Your task to perform on an android device: Is it going to rain today? Image 0: 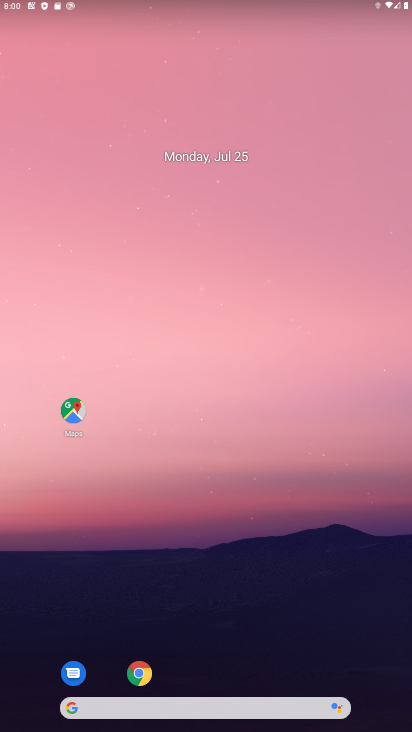
Step 0: drag from (205, 708) to (166, 265)
Your task to perform on an android device: Is it going to rain today? Image 1: 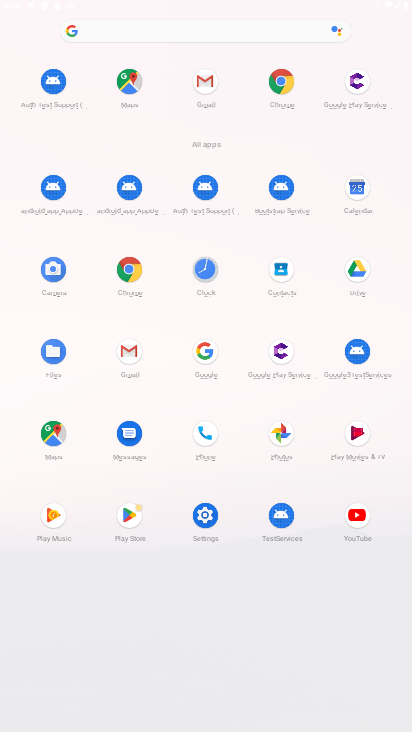
Step 1: click (276, 91)
Your task to perform on an android device: Is it going to rain today? Image 2: 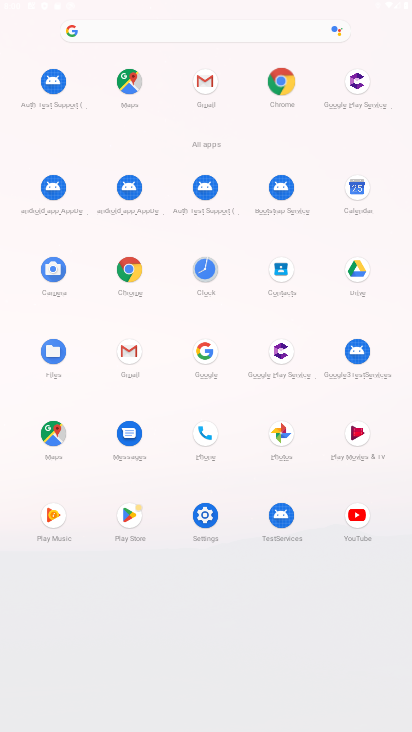
Step 2: click (279, 88)
Your task to perform on an android device: Is it going to rain today? Image 3: 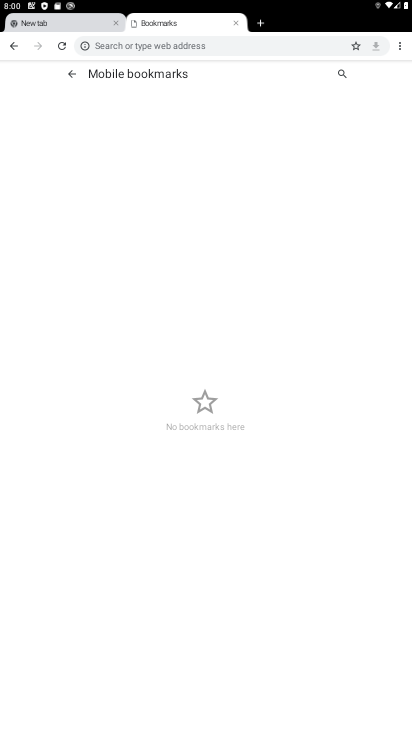
Step 3: click (66, 66)
Your task to perform on an android device: Is it going to rain today? Image 4: 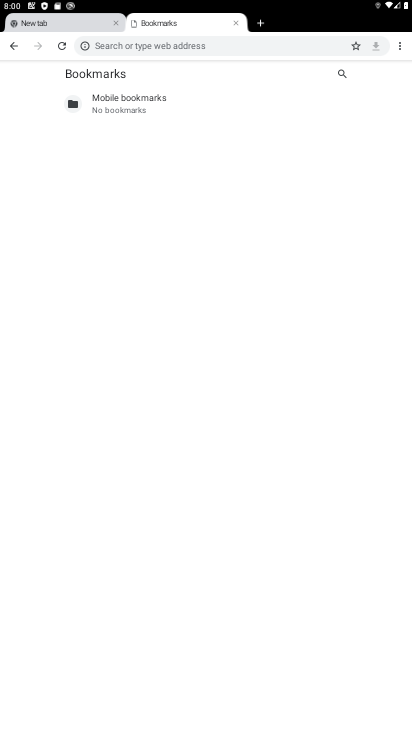
Step 4: click (65, 68)
Your task to perform on an android device: Is it going to rain today? Image 5: 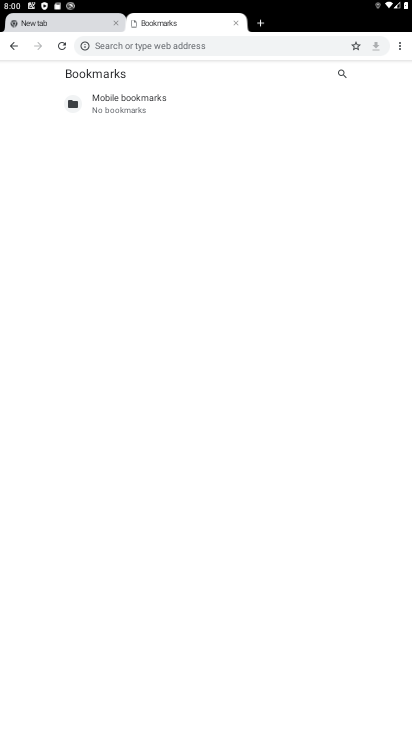
Step 5: click (102, 51)
Your task to perform on an android device: Is it going to rain today? Image 6: 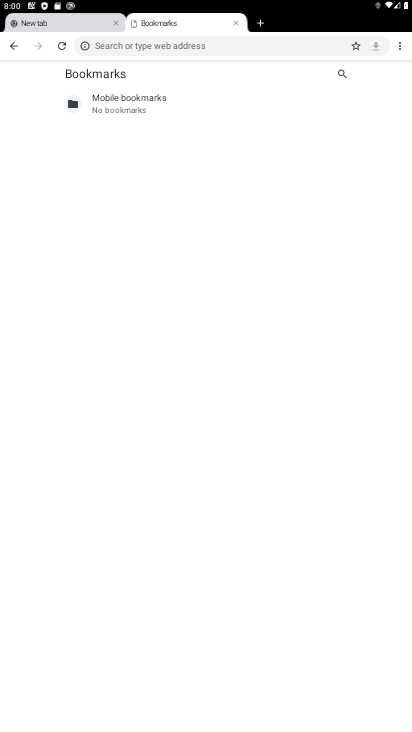
Step 6: click (108, 36)
Your task to perform on an android device: Is it going to rain today? Image 7: 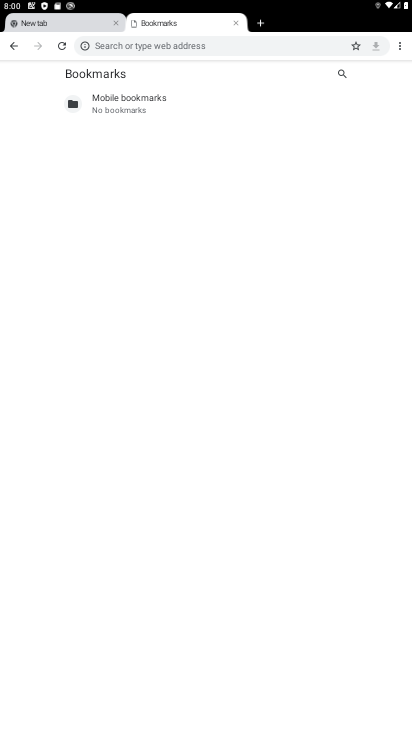
Step 7: click (109, 41)
Your task to perform on an android device: Is it going to rain today? Image 8: 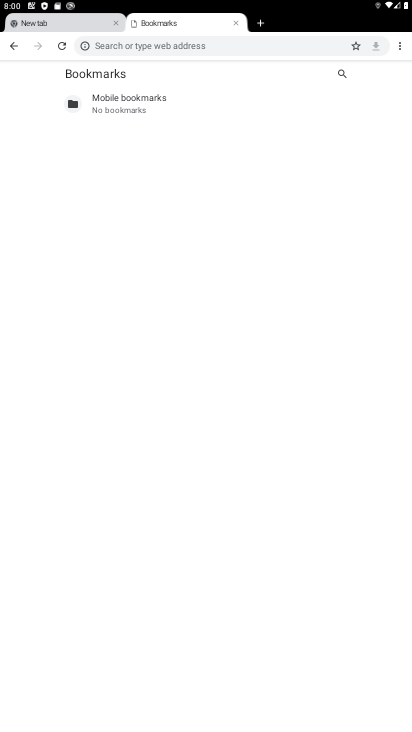
Step 8: click (109, 41)
Your task to perform on an android device: Is it going to rain today? Image 9: 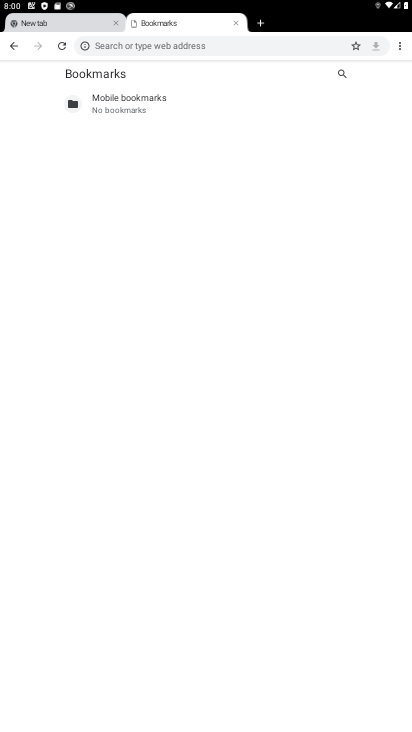
Step 9: click (240, 14)
Your task to perform on an android device: Is it going to rain today? Image 10: 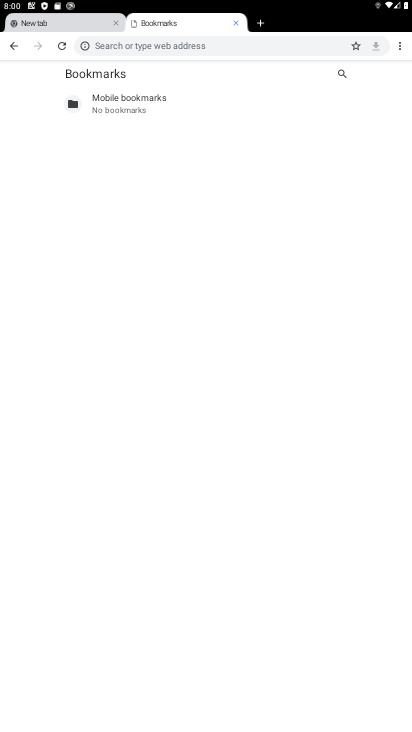
Step 10: click (245, 13)
Your task to perform on an android device: Is it going to rain today? Image 11: 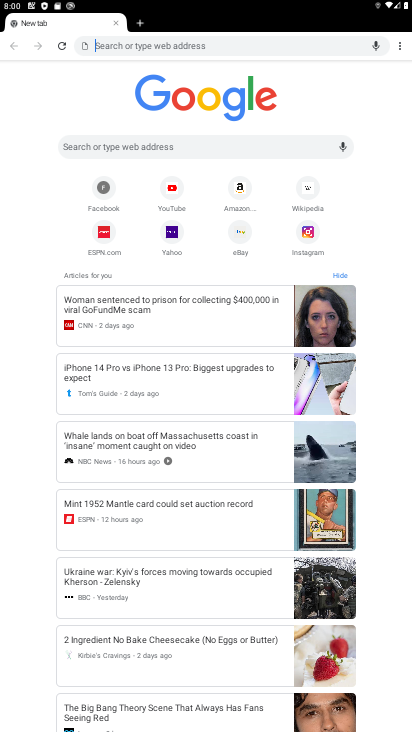
Step 11: type "rain today"
Your task to perform on an android device: Is it going to rain today? Image 12: 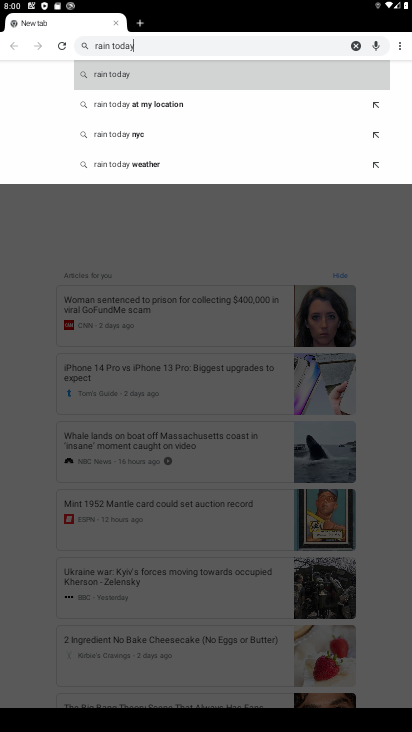
Step 12: click (127, 78)
Your task to perform on an android device: Is it going to rain today? Image 13: 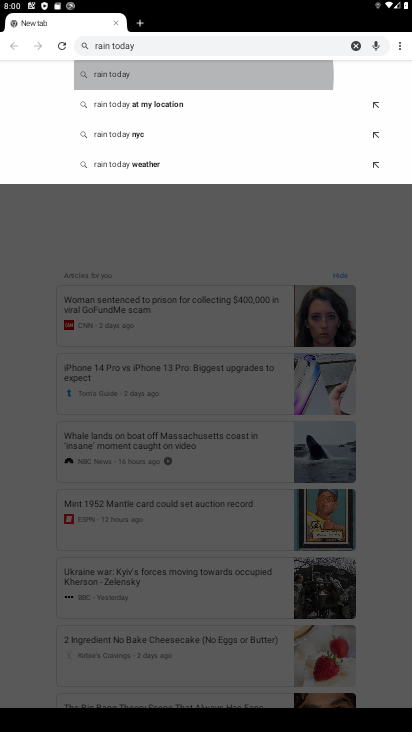
Step 13: click (125, 75)
Your task to perform on an android device: Is it going to rain today? Image 14: 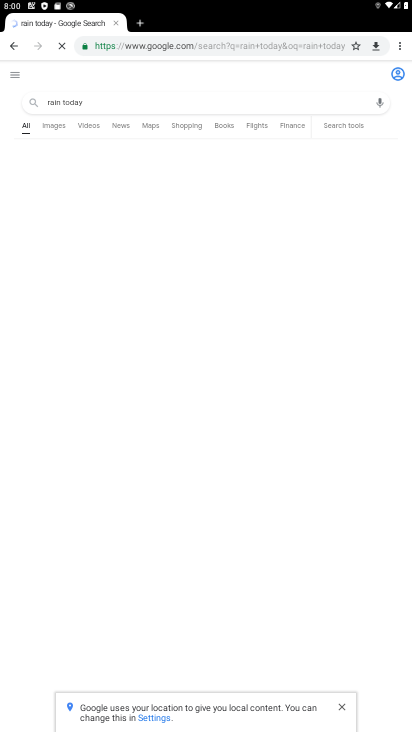
Step 14: click (121, 101)
Your task to perform on an android device: Is it going to rain today? Image 15: 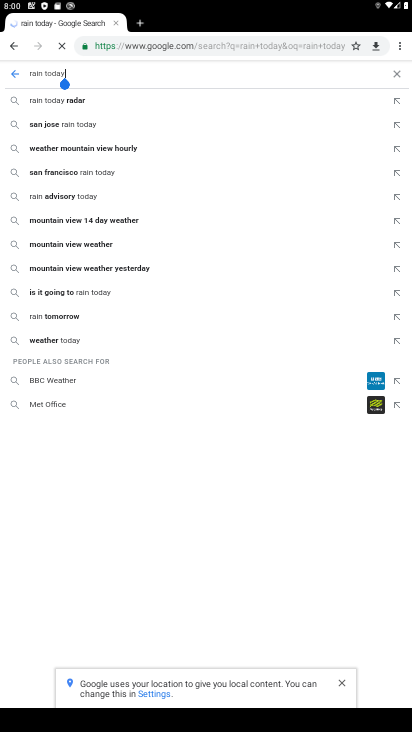
Step 15: task complete